Your task to perform on an android device: delete location history Image 0: 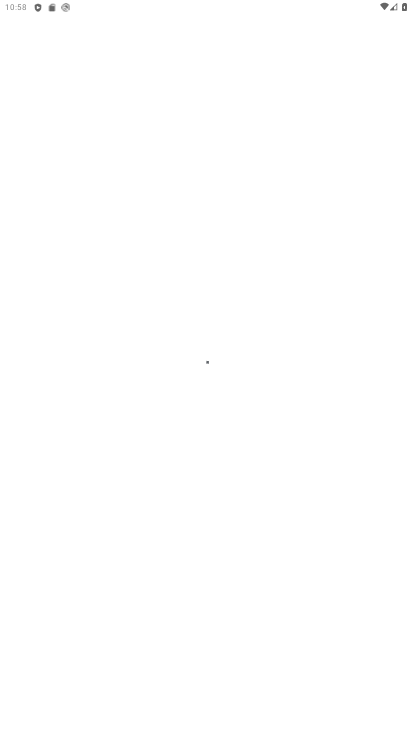
Step 0: press home button
Your task to perform on an android device: delete location history Image 1: 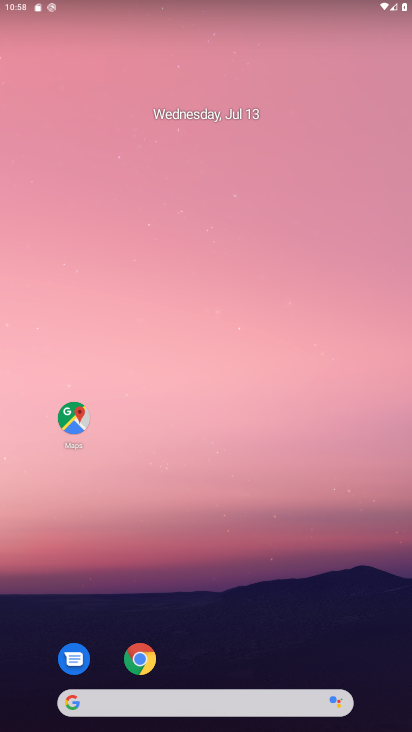
Step 1: click (69, 413)
Your task to perform on an android device: delete location history Image 2: 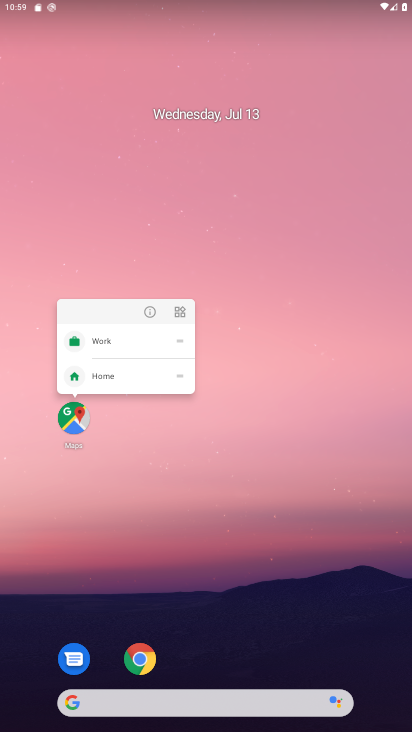
Step 2: click (73, 416)
Your task to perform on an android device: delete location history Image 3: 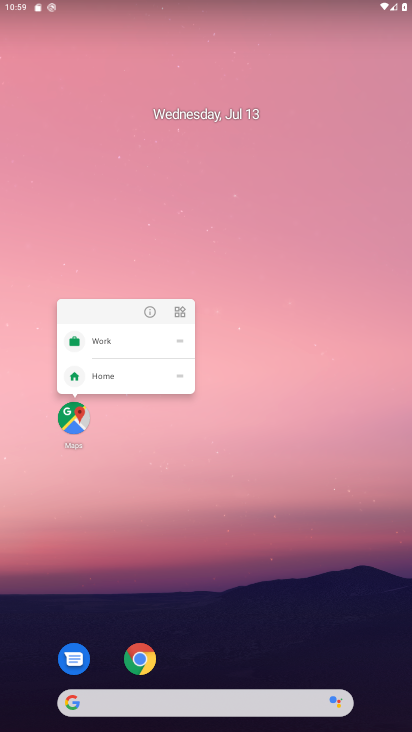
Step 3: click (72, 414)
Your task to perform on an android device: delete location history Image 4: 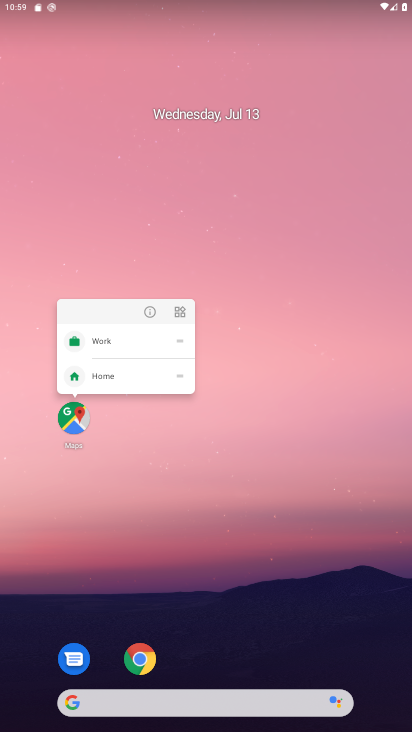
Step 4: click (72, 422)
Your task to perform on an android device: delete location history Image 5: 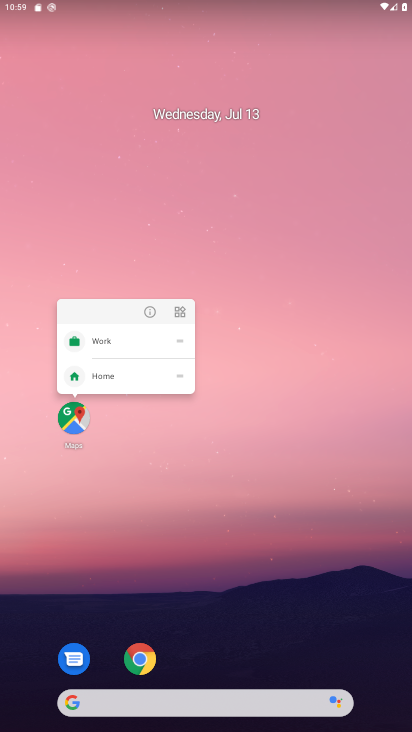
Step 5: click (67, 413)
Your task to perform on an android device: delete location history Image 6: 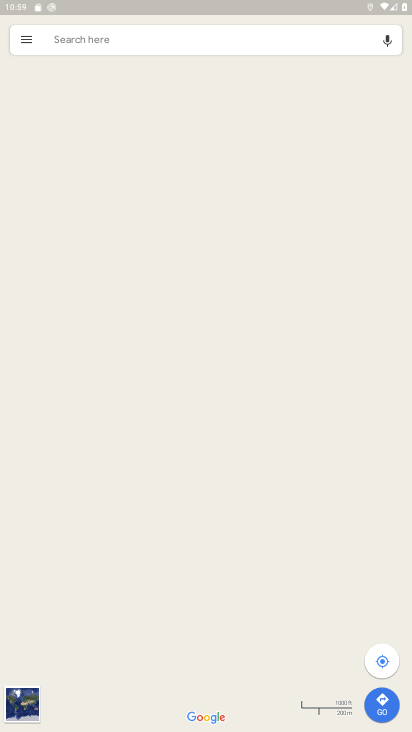
Step 6: click (25, 39)
Your task to perform on an android device: delete location history Image 7: 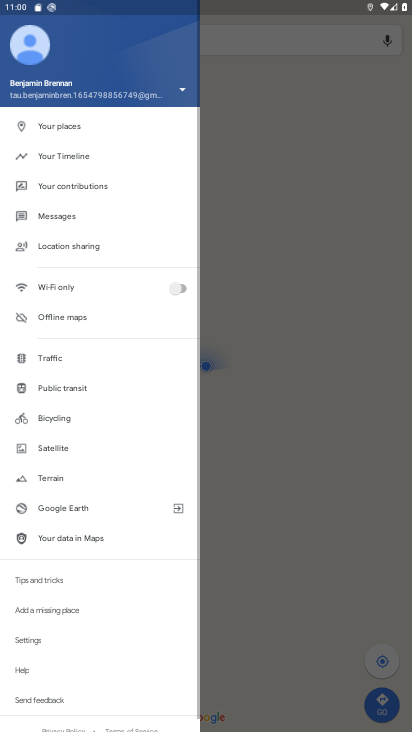
Step 7: click (94, 149)
Your task to perform on an android device: delete location history Image 8: 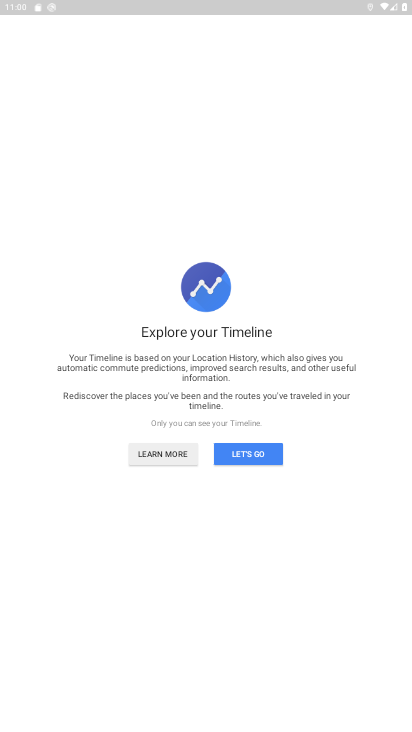
Step 8: click (241, 452)
Your task to perform on an android device: delete location history Image 9: 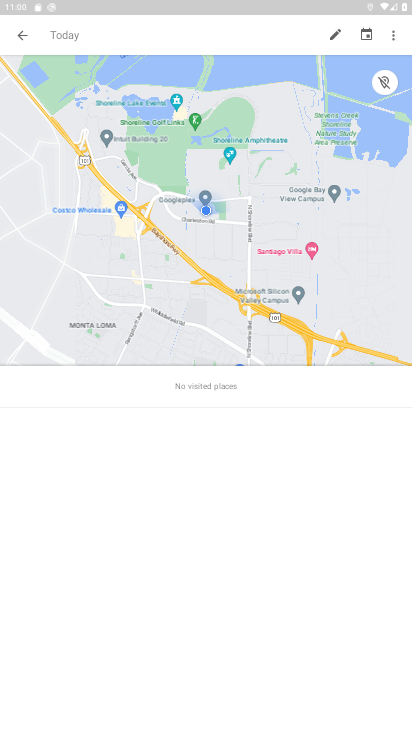
Step 9: click (394, 37)
Your task to perform on an android device: delete location history Image 10: 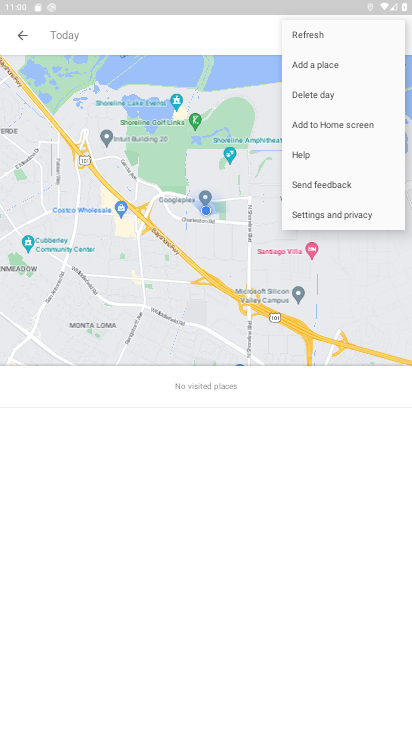
Step 10: click (359, 215)
Your task to perform on an android device: delete location history Image 11: 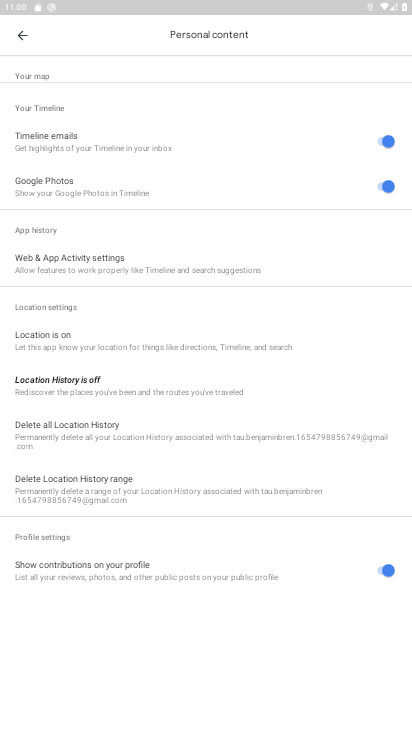
Step 11: click (81, 431)
Your task to perform on an android device: delete location history Image 12: 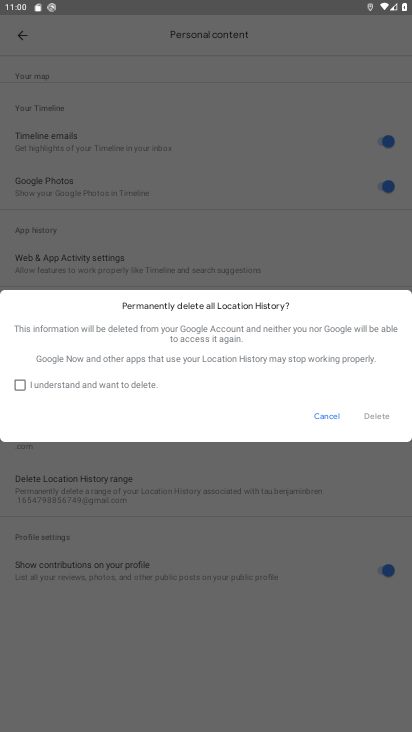
Step 12: click (21, 381)
Your task to perform on an android device: delete location history Image 13: 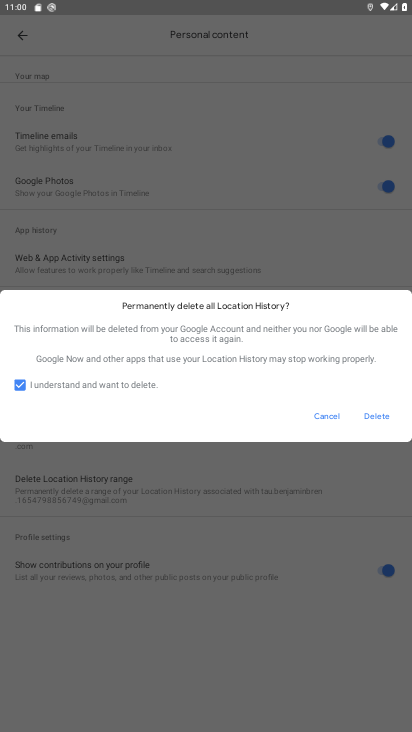
Step 13: click (372, 417)
Your task to perform on an android device: delete location history Image 14: 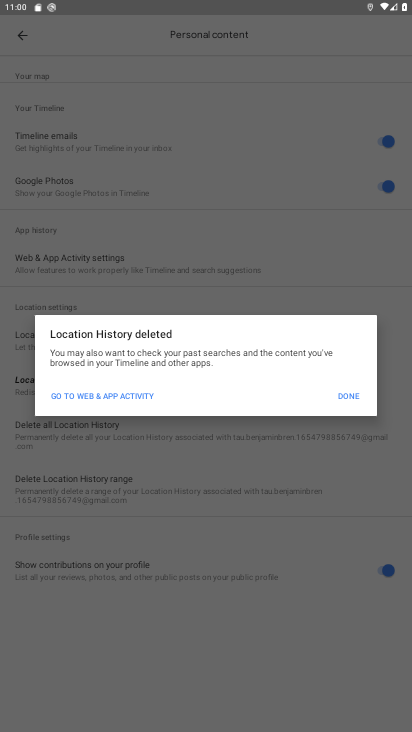
Step 14: click (350, 394)
Your task to perform on an android device: delete location history Image 15: 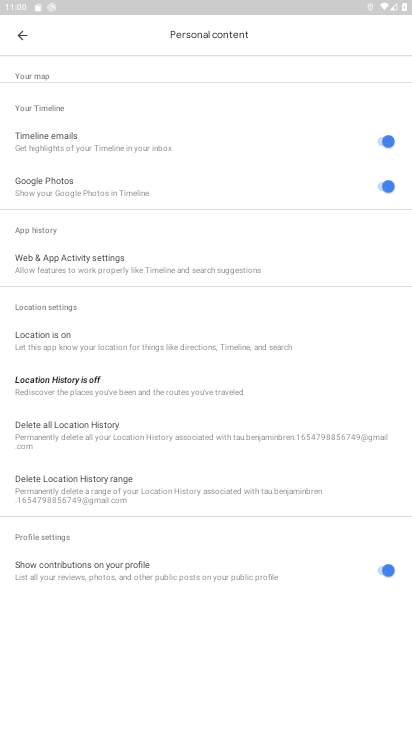
Step 15: task complete